Your task to perform on an android device: Go to eBay Image 0: 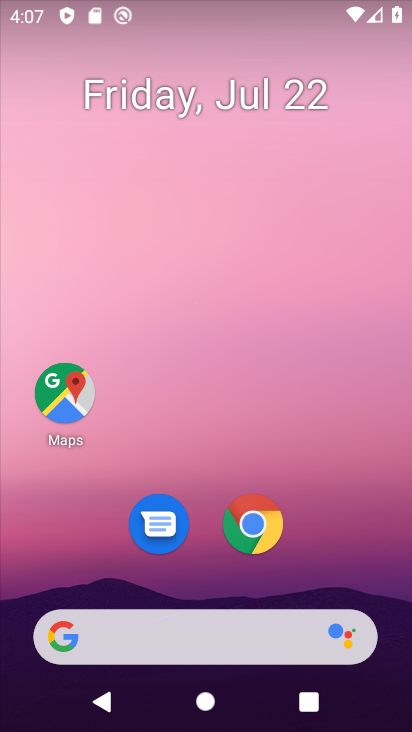
Step 0: click (266, 639)
Your task to perform on an android device: Go to eBay Image 1: 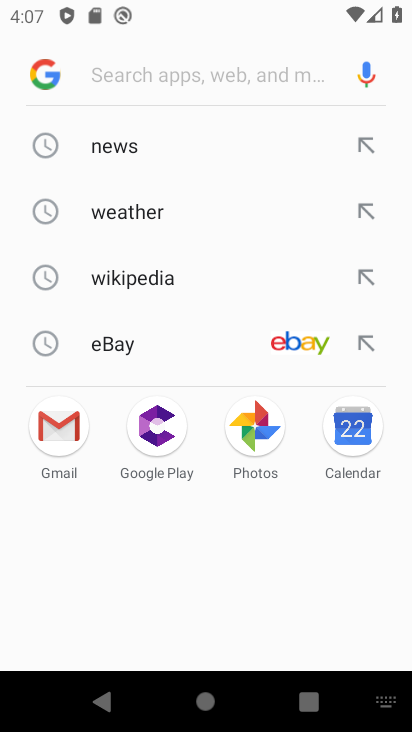
Step 1: click (293, 328)
Your task to perform on an android device: Go to eBay Image 2: 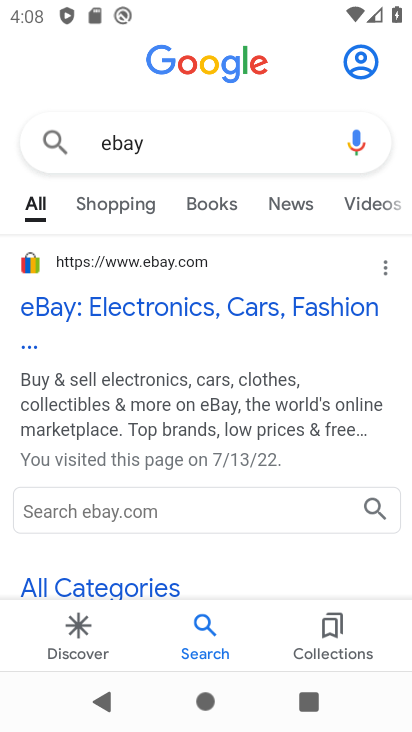
Step 2: click (70, 307)
Your task to perform on an android device: Go to eBay Image 3: 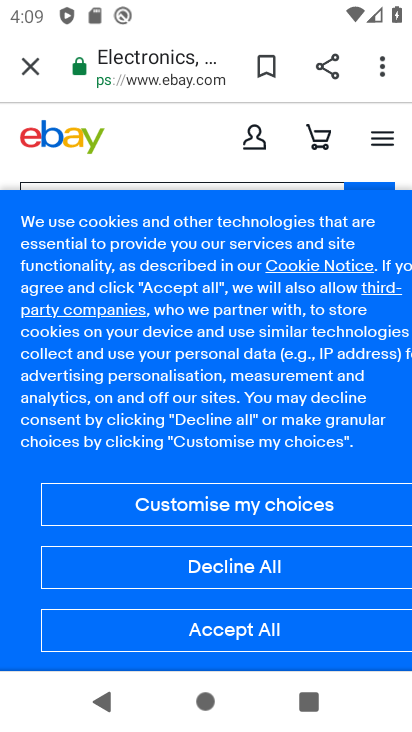
Step 3: task complete